Your task to perform on an android device: turn on improve location accuracy Image 0: 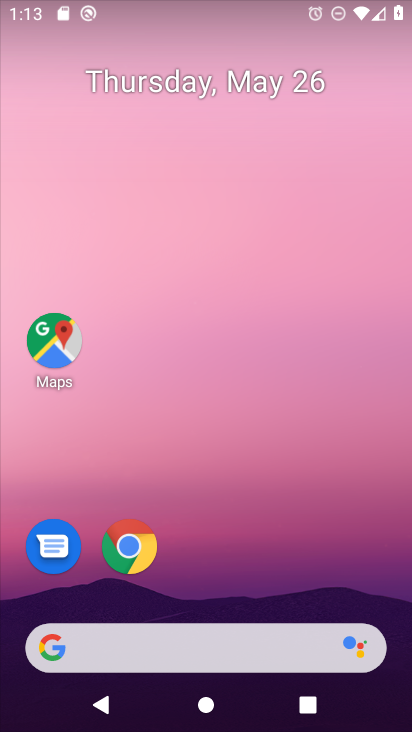
Step 0: drag from (154, 618) to (181, 173)
Your task to perform on an android device: turn on improve location accuracy Image 1: 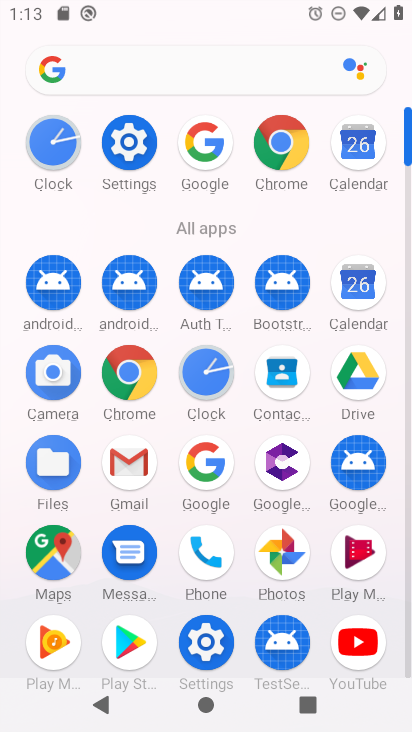
Step 1: click (127, 150)
Your task to perform on an android device: turn on improve location accuracy Image 2: 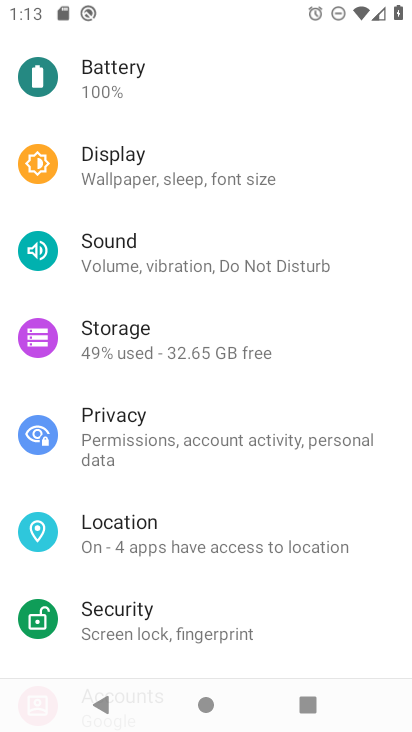
Step 2: click (153, 444)
Your task to perform on an android device: turn on improve location accuracy Image 3: 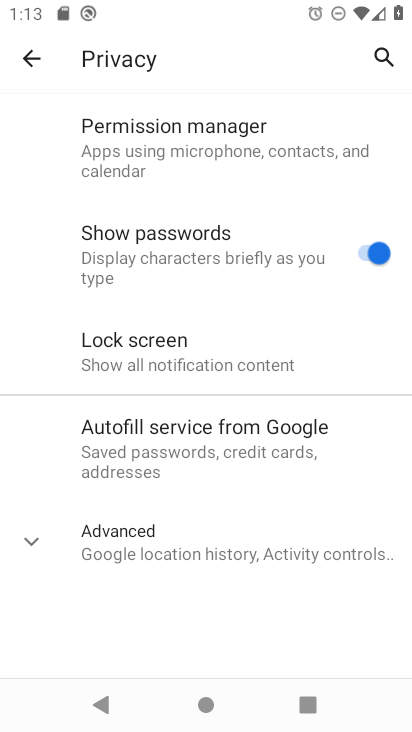
Step 3: click (128, 541)
Your task to perform on an android device: turn on improve location accuracy Image 4: 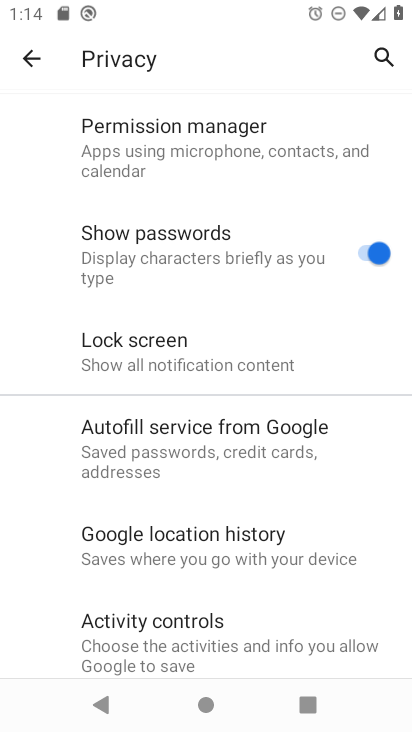
Step 4: click (327, 176)
Your task to perform on an android device: turn on improve location accuracy Image 5: 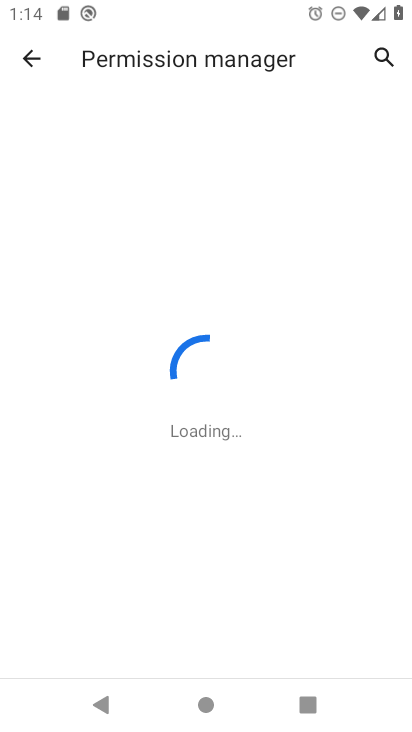
Step 5: press back button
Your task to perform on an android device: turn on improve location accuracy Image 6: 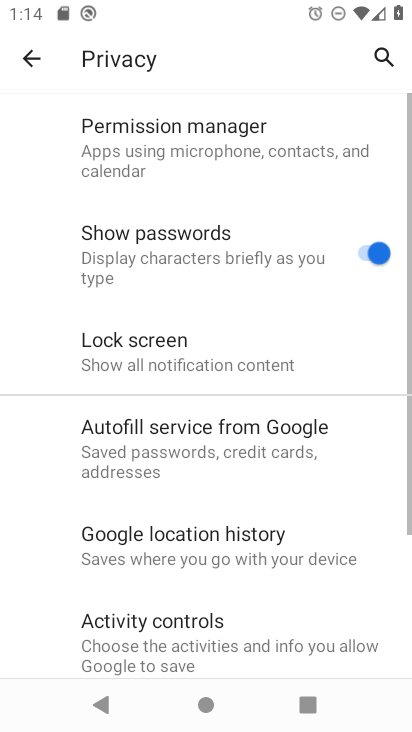
Step 6: press back button
Your task to perform on an android device: turn on improve location accuracy Image 7: 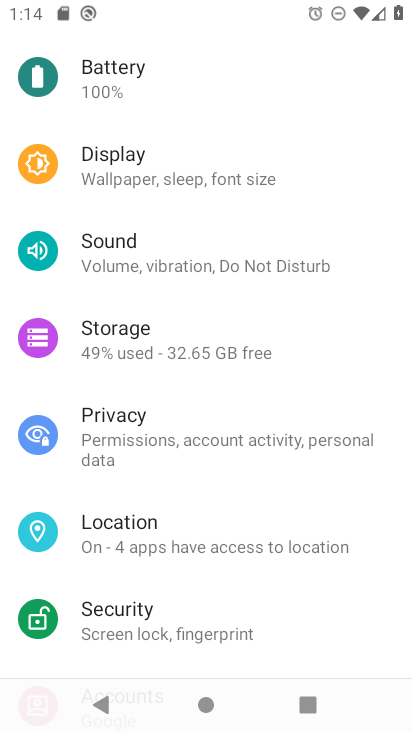
Step 7: click (128, 542)
Your task to perform on an android device: turn on improve location accuracy Image 8: 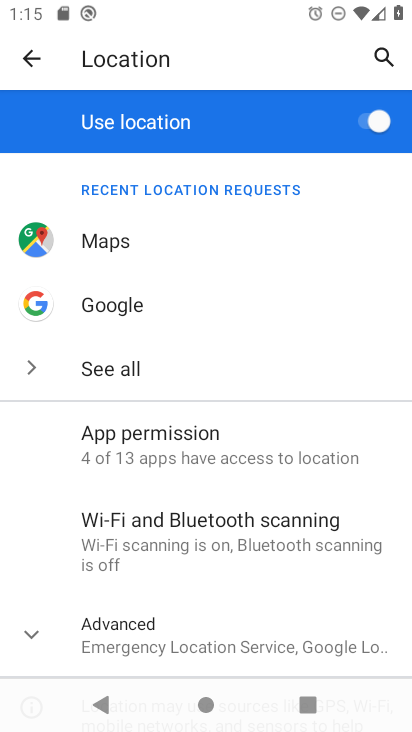
Step 8: click (171, 632)
Your task to perform on an android device: turn on improve location accuracy Image 9: 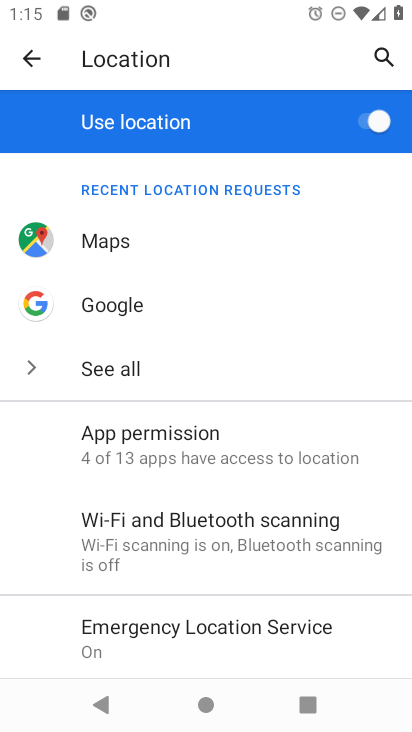
Step 9: drag from (218, 631) to (238, 188)
Your task to perform on an android device: turn on improve location accuracy Image 10: 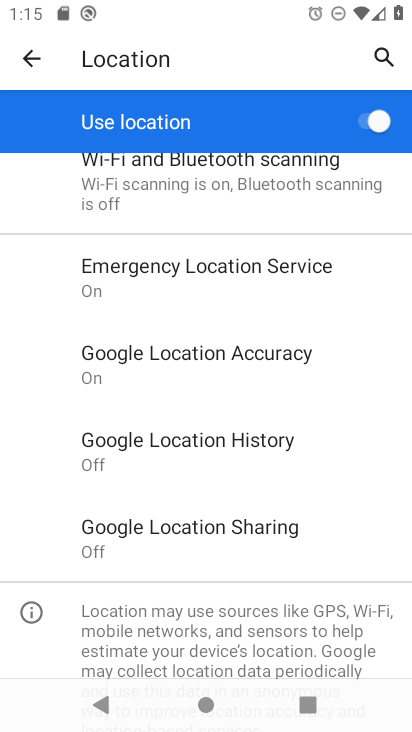
Step 10: click (239, 362)
Your task to perform on an android device: turn on improve location accuracy Image 11: 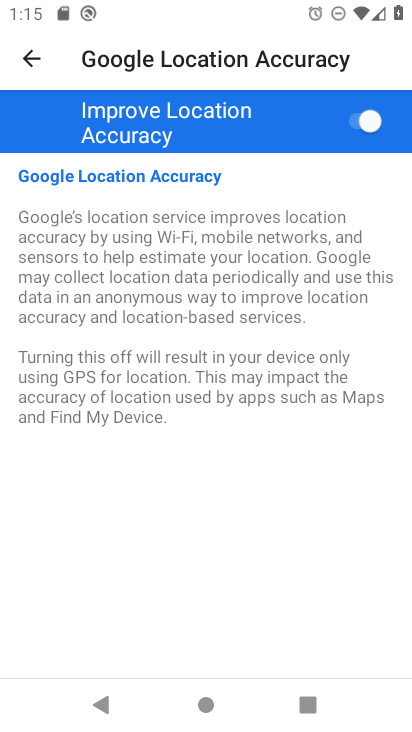
Step 11: task complete